Your task to perform on an android device: open wifi settings Image 0: 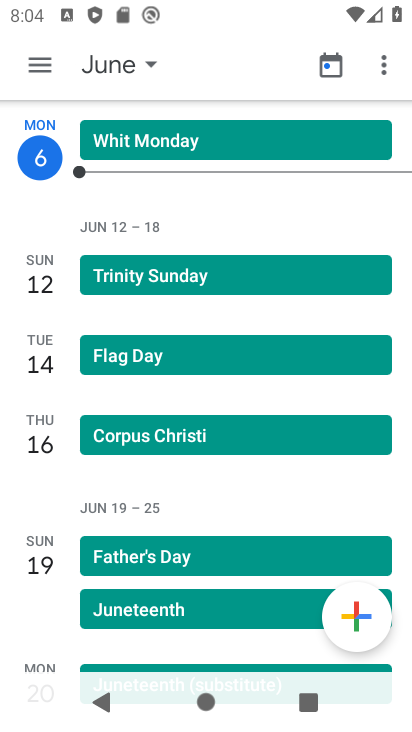
Step 0: press home button
Your task to perform on an android device: open wifi settings Image 1: 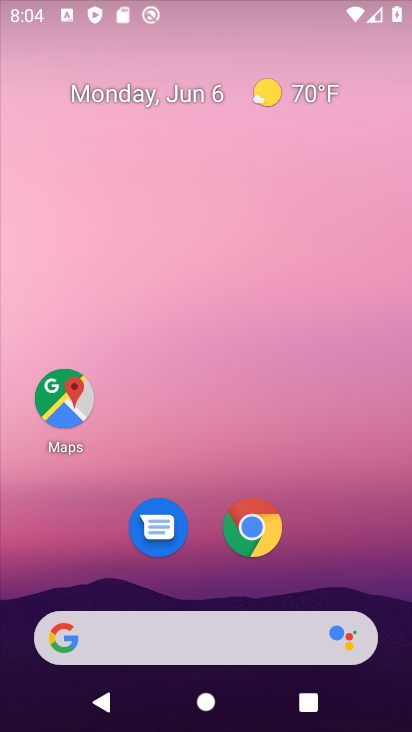
Step 1: drag from (211, 647) to (213, 412)
Your task to perform on an android device: open wifi settings Image 2: 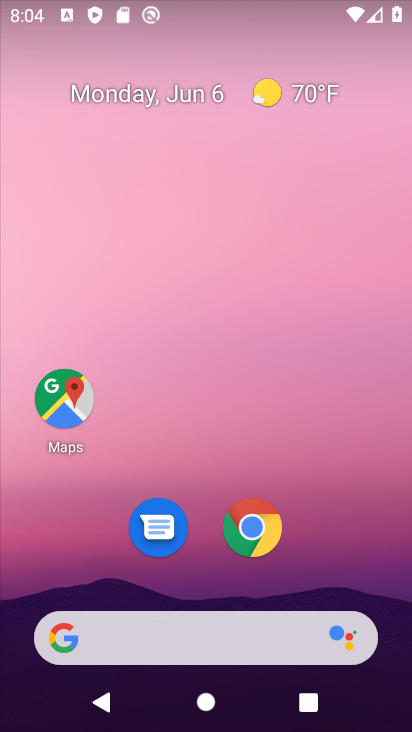
Step 2: drag from (214, 568) to (245, 207)
Your task to perform on an android device: open wifi settings Image 3: 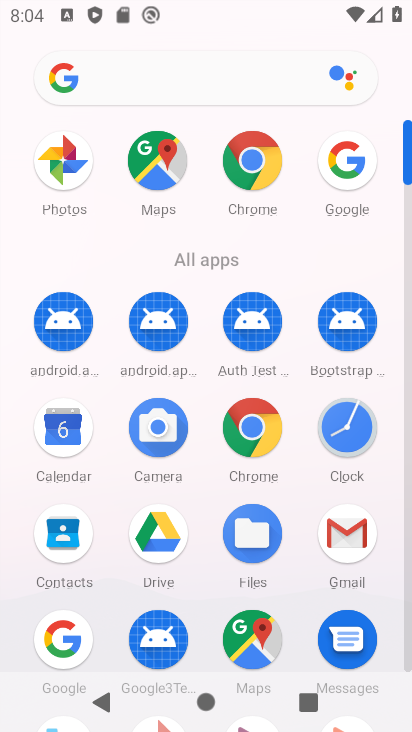
Step 3: drag from (217, 495) to (231, 189)
Your task to perform on an android device: open wifi settings Image 4: 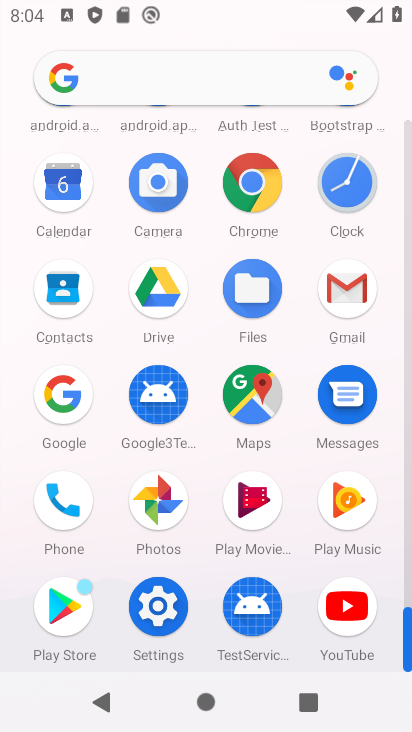
Step 4: click (164, 613)
Your task to perform on an android device: open wifi settings Image 5: 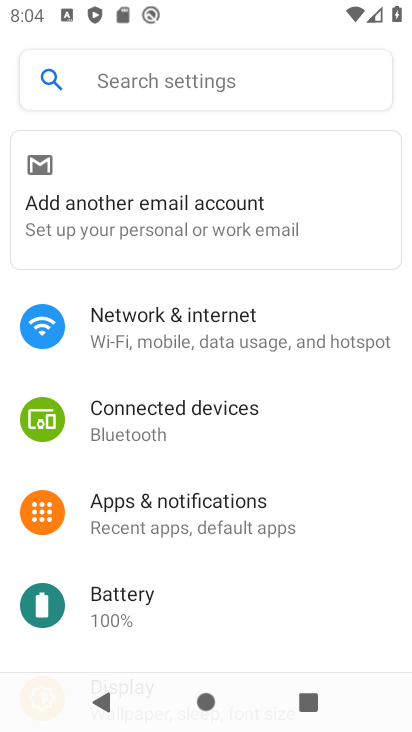
Step 5: click (204, 329)
Your task to perform on an android device: open wifi settings Image 6: 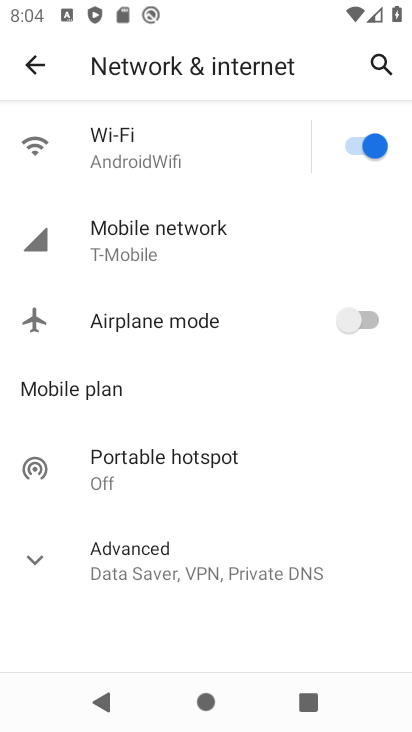
Step 6: click (179, 153)
Your task to perform on an android device: open wifi settings Image 7: 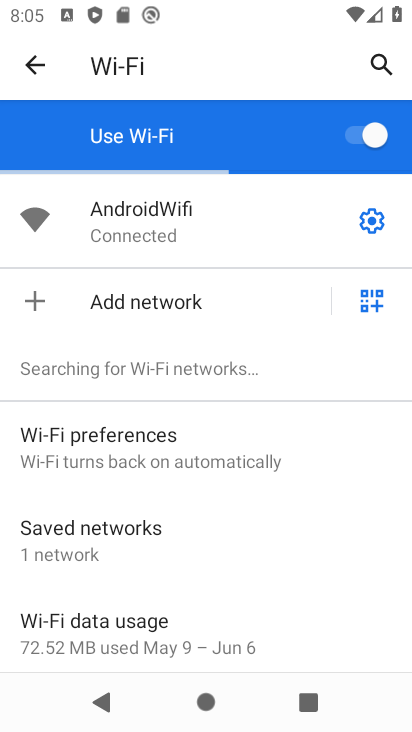
Step 7: task complete